Your task to perform on an android device: Add macbook to the cart on amazon Image 0: 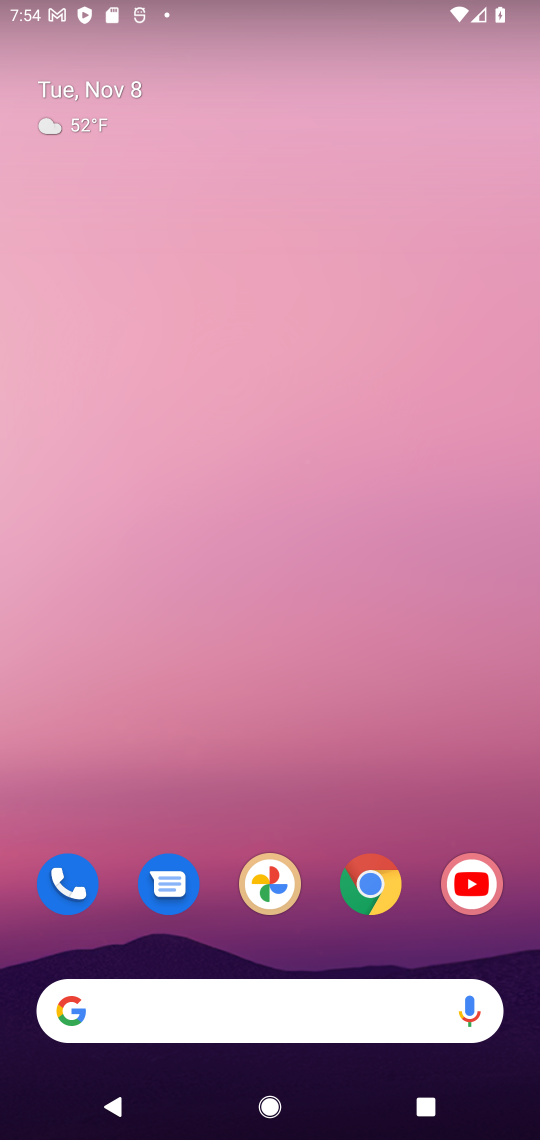
Step 0: drag from (332, 984) to (377, 718)
Your task to perform on an android device: Add macbook to the cart on amazon Image 1: 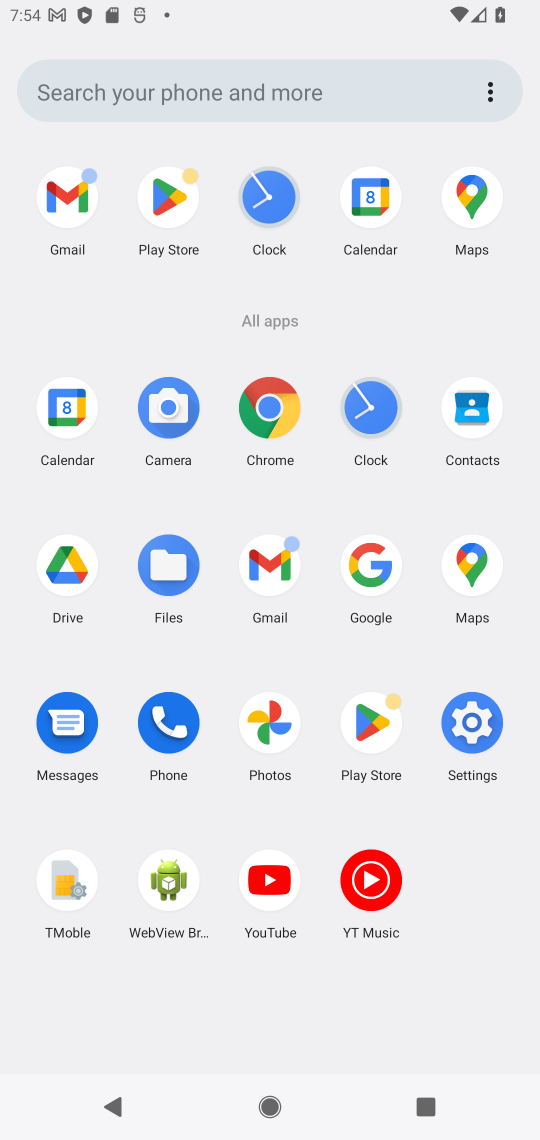
Step 1: click (375, 578)
Your task to perform on an android device: Add macbook to the cart on amazon Image 2: 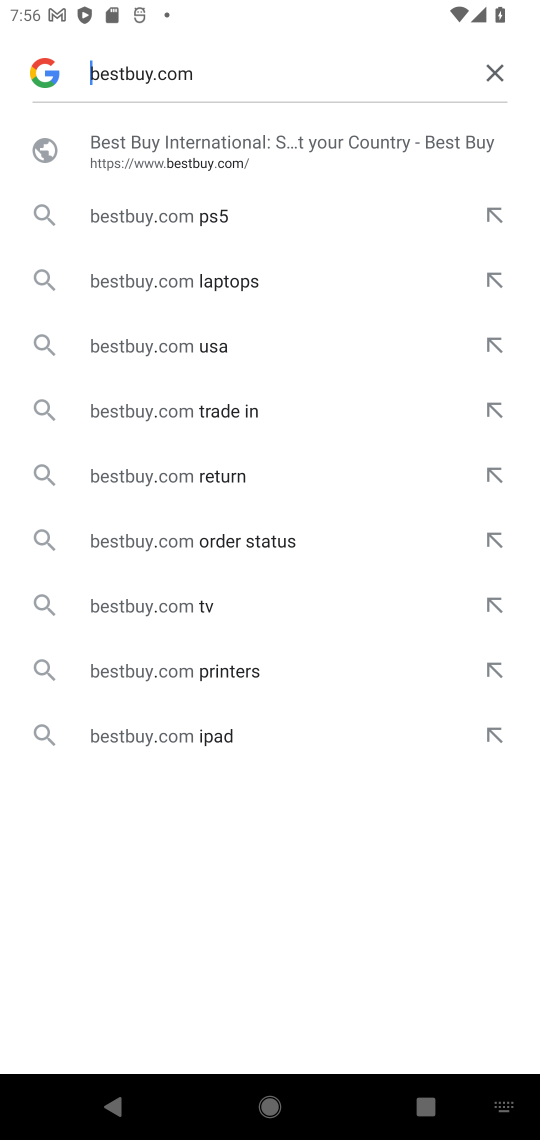
Step 2: click (509, 84)
Your task to perform on an android device: Add macbook to the cart on amazon Image 3: 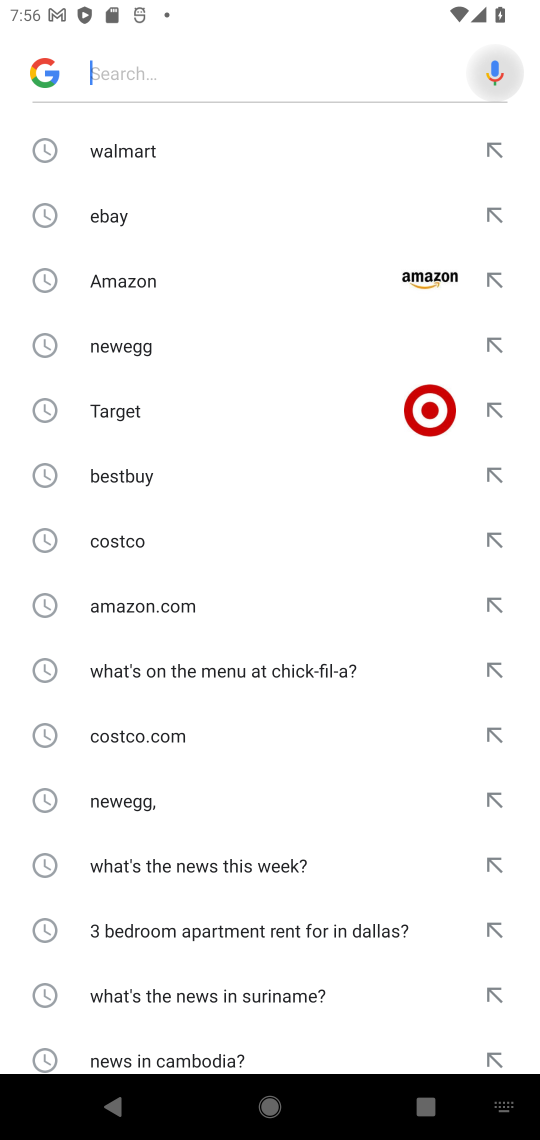
Step 3: click (491, 74)
Your task to perform on an android device: Add macbook to the cart on amazon Image 4: 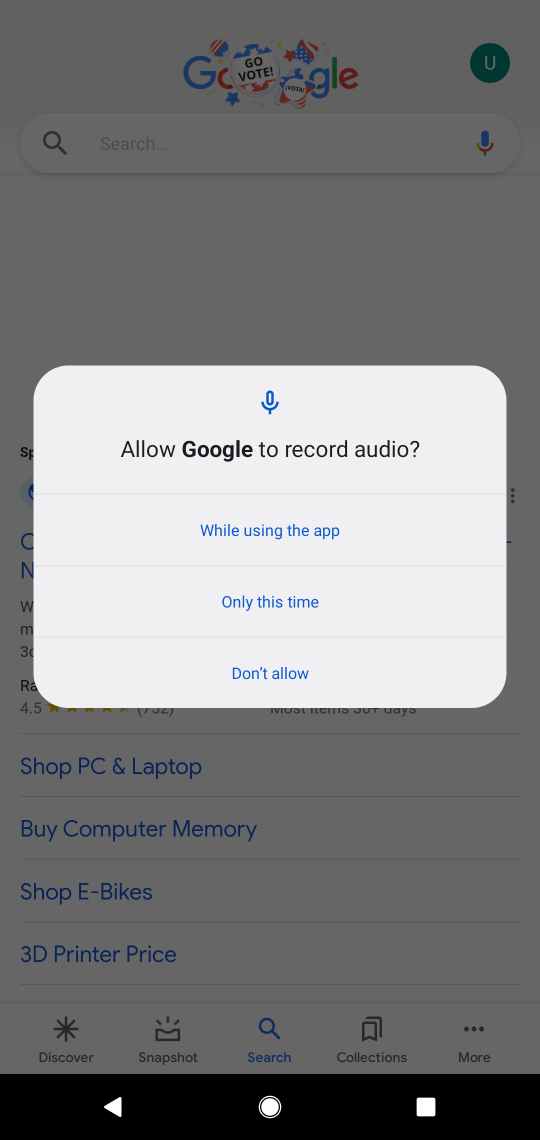
Step 4: press back button
Your task to perform on an android device: Add macbook to the cart on amazon Image 5: 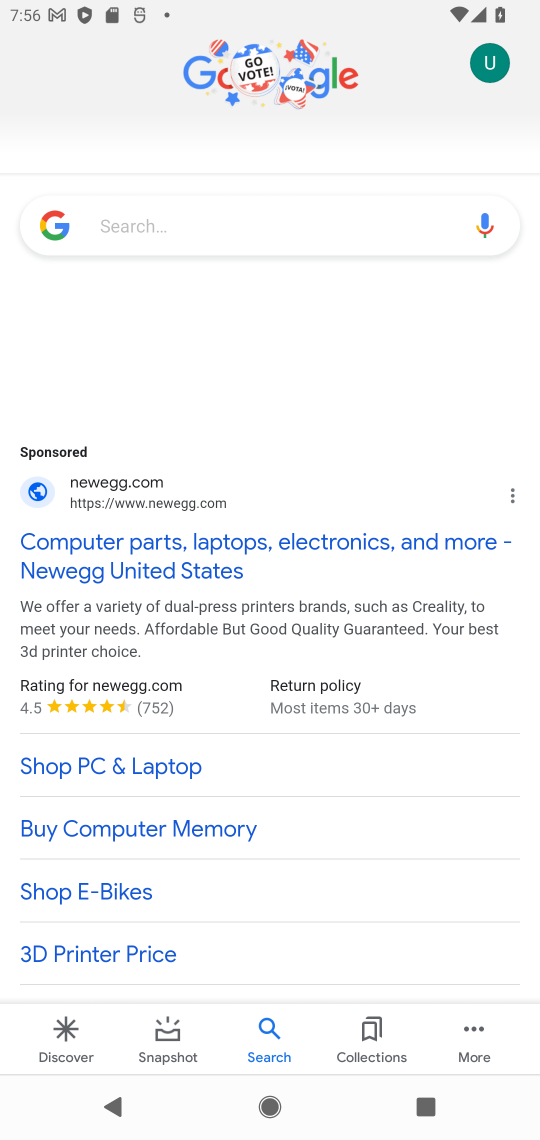
Step 5: click (356, 244)
Your task to perform on an android device: Add macbook to the cart on amazon Image 6: 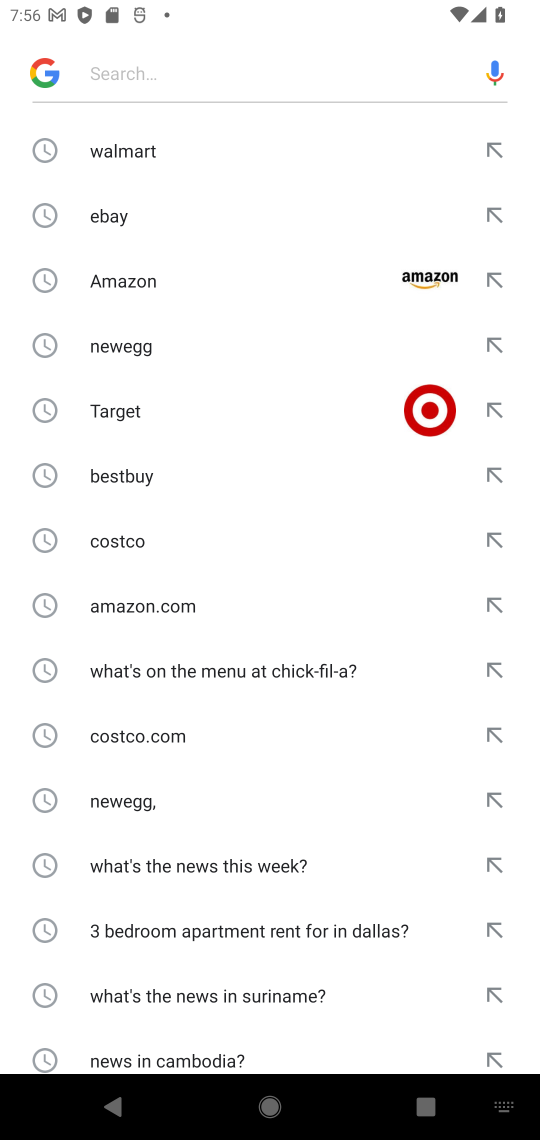
Step 6: click (139, 282)
Your task to perform on an android device: Add macbook to the cart on amazon Image 7: 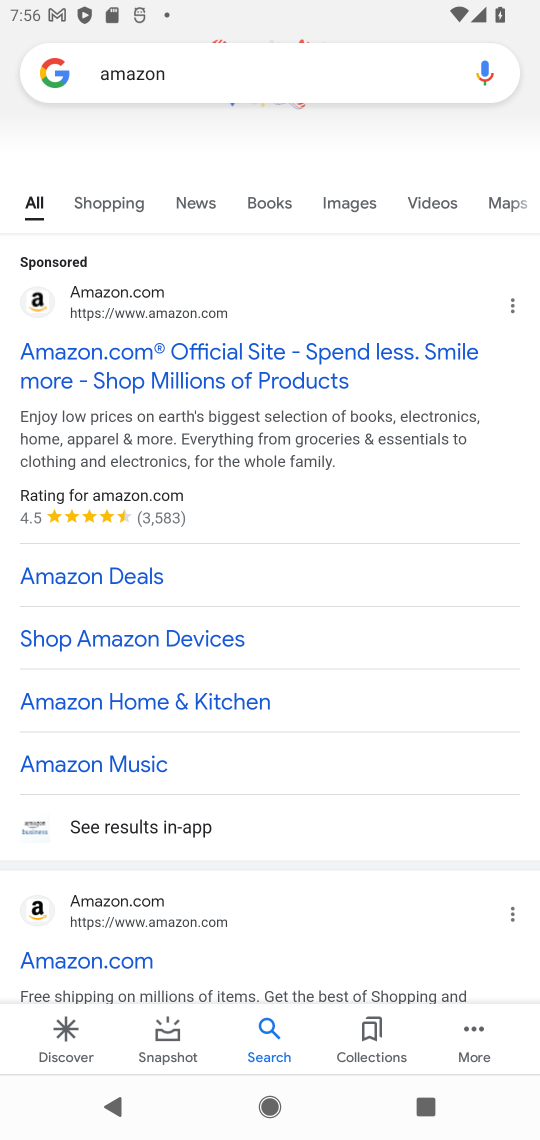
Step 7: click (130, 376)
Your task to perform on an android device: Add macbook to the cart on amazon Image 8: 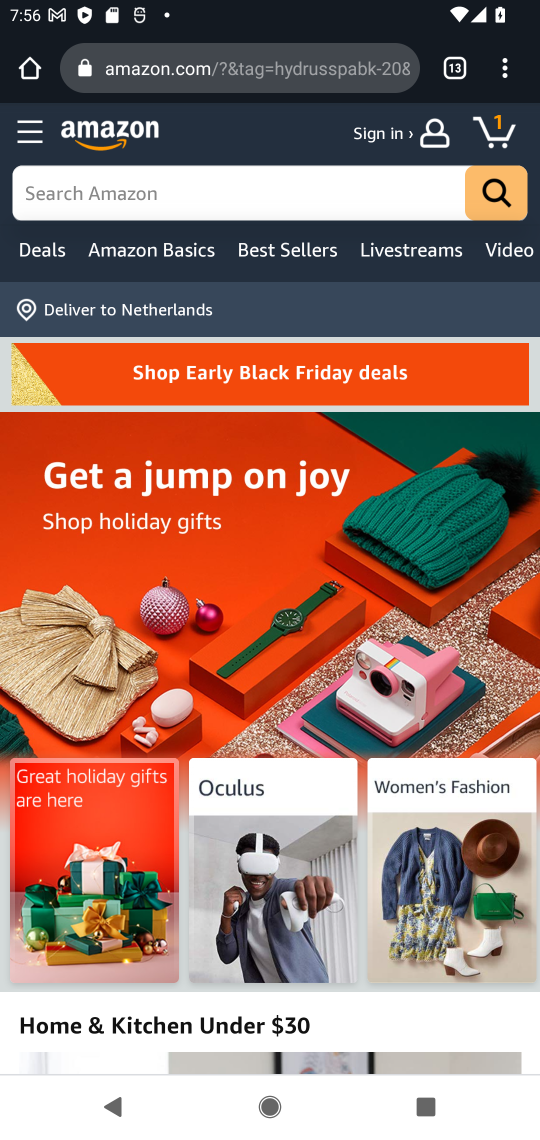
Step 8: click (288, 188)
Your task to perform on an android device: Add macbook to the cart on amazon Image 9: 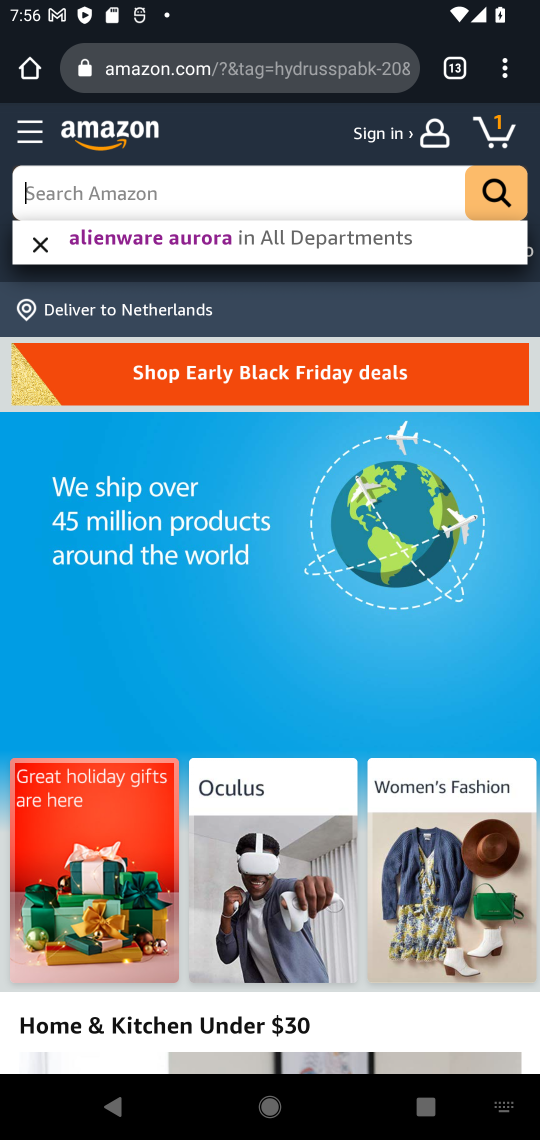
Step 9: type "macbook"
Your task to perform on an android device: Add macbook to the cart on amazon Image 10: 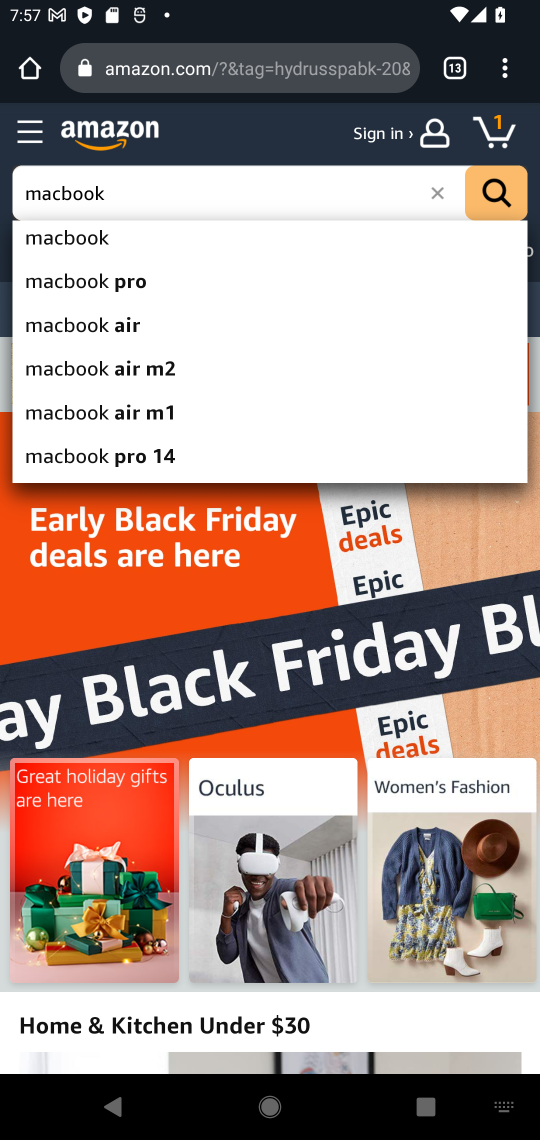
Step 10: click (184, 229)
Your task to perform on an android device: Add macbook to the cart on amazon Image 11: 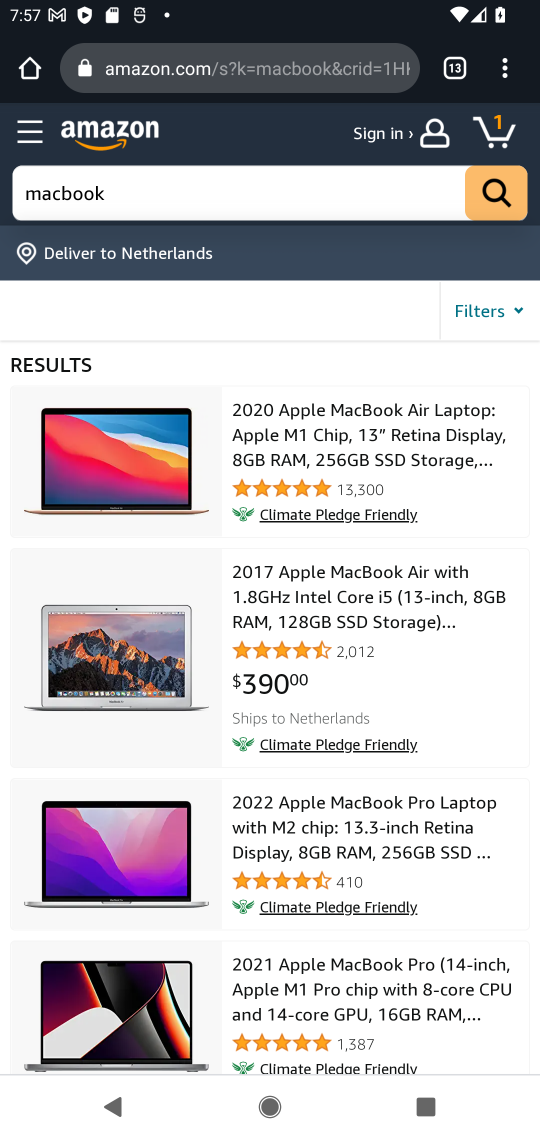
Step 11: click (172, 430)
Your task to perform on an android device: Add macbook to the cart on amazon Image 12: 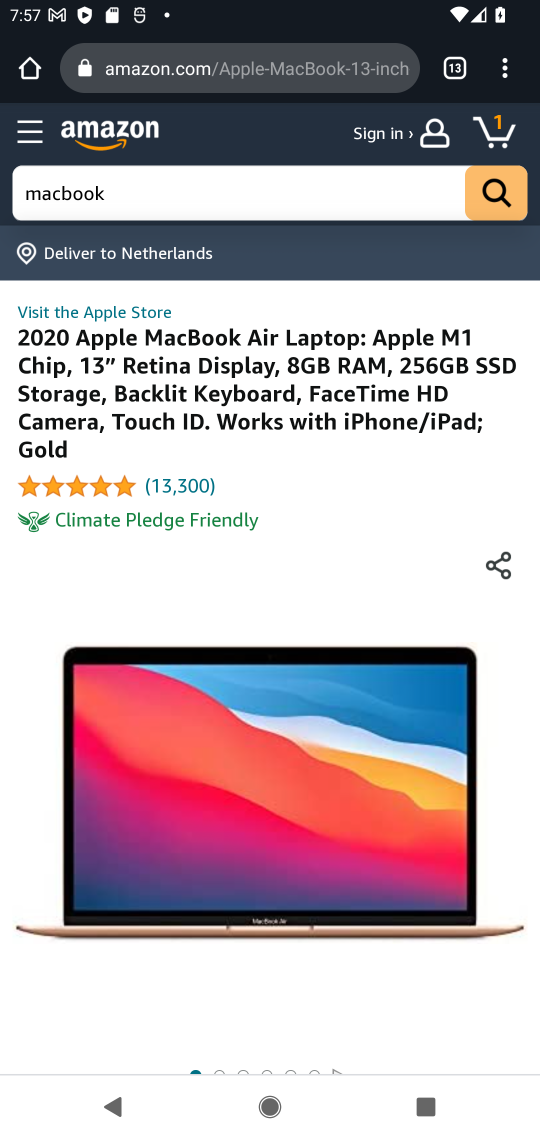
Step 12: drag from (324, 940) to (345, 883)
Your task to perform on an android device: Add macbook to the cart on amazon Image 13: 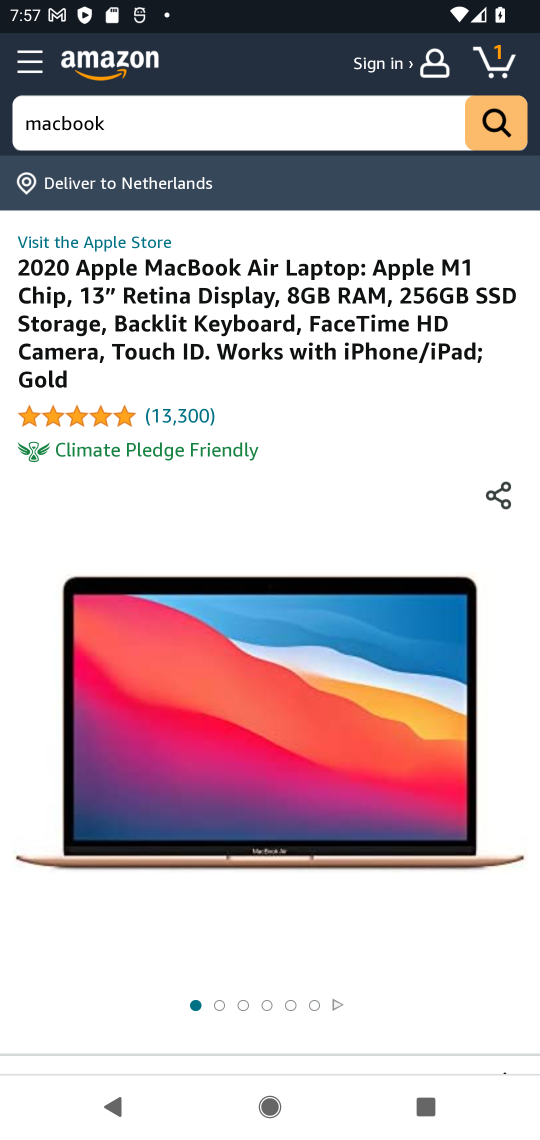
Step 13: drag from (402, 981) to (452, 723)
Your task to perform on an android device: Add macbook to the cart on amazon Image 14: 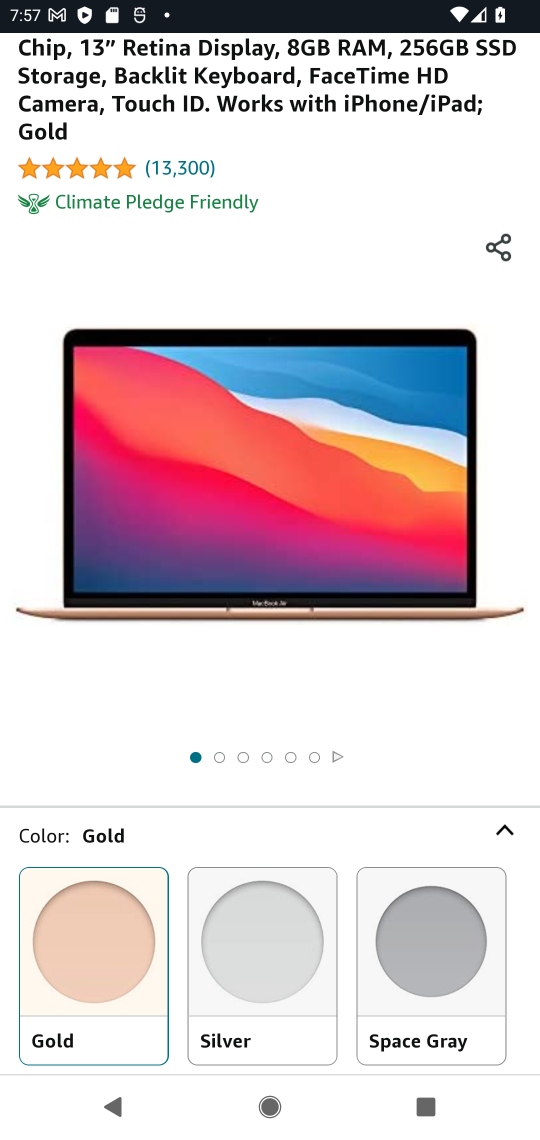
Step 14: drag from (450, 950) to (497, 579)
Your task to perform on an android device: Add macbook to the cart on amazon Image 15: 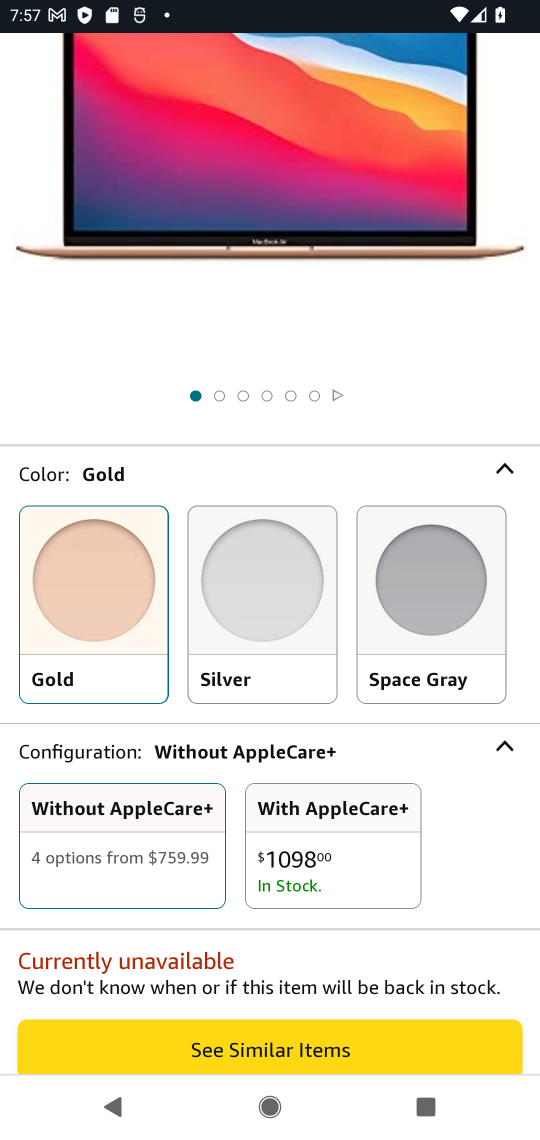
Step 15: click (387, 865)
Your task to perform on an android device: Add macbook to the cart on amazon Image 16: 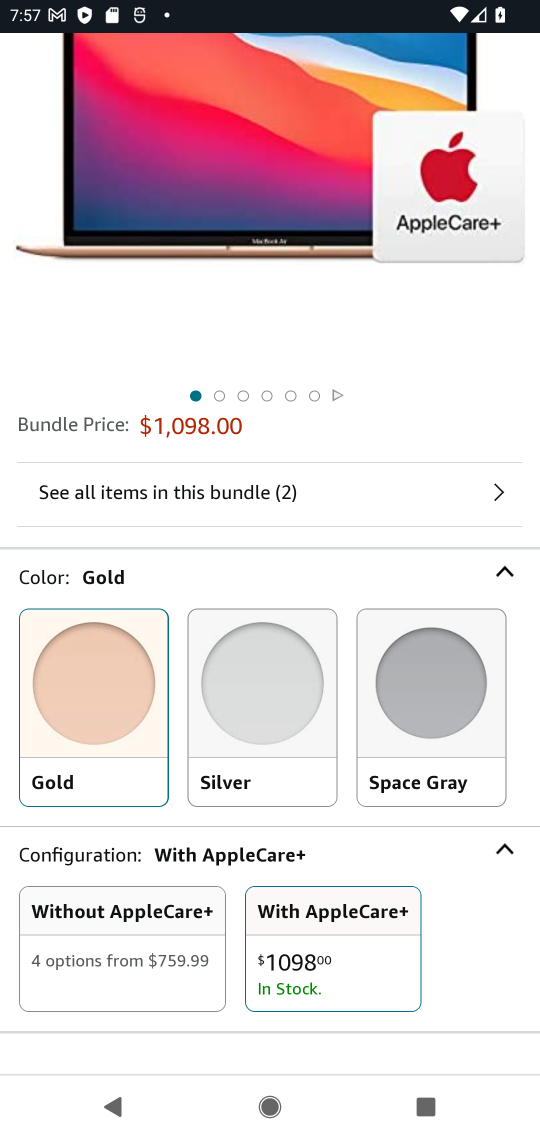
Step 16: task complete